Your task to perform on an android device: open wifi settings Image 0: 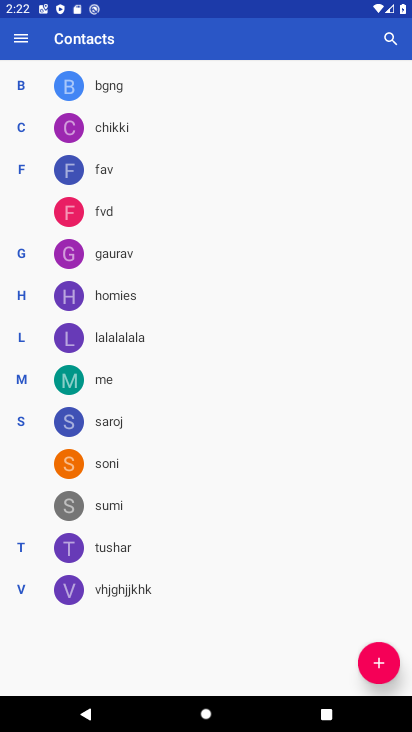
Step 0: press back button
Your task to perform on an android device: open wifi settings Image 1: 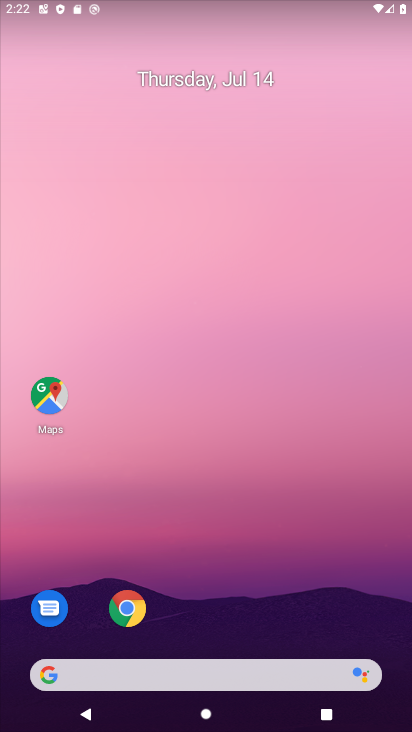
Step 1: drag from (68, 6) to (184, 613)
Your task to perform on an android device: open wifi settings Image 2: 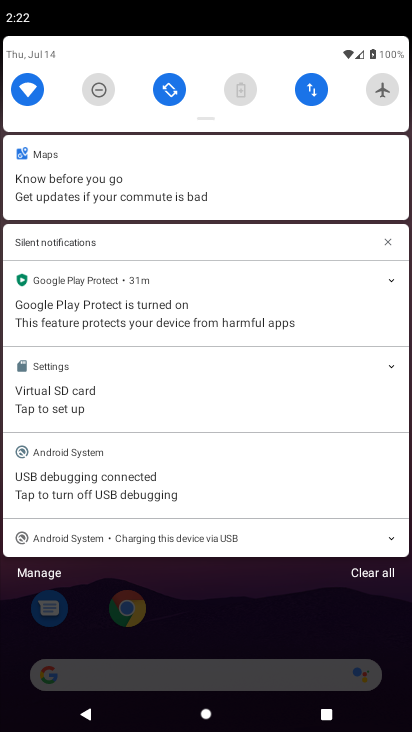
Step 2: click (33, 88)
Your task to perform on an android device: open wifi settings Image 3: 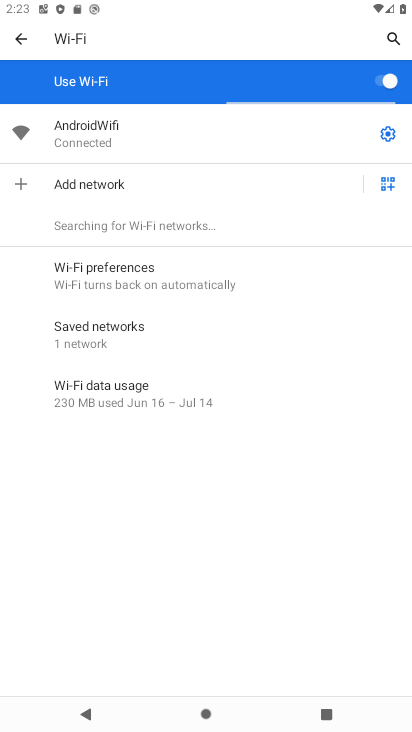
Step 3: task complete